Your task to perform on an android device: add a contact in the contacts app Image 0: 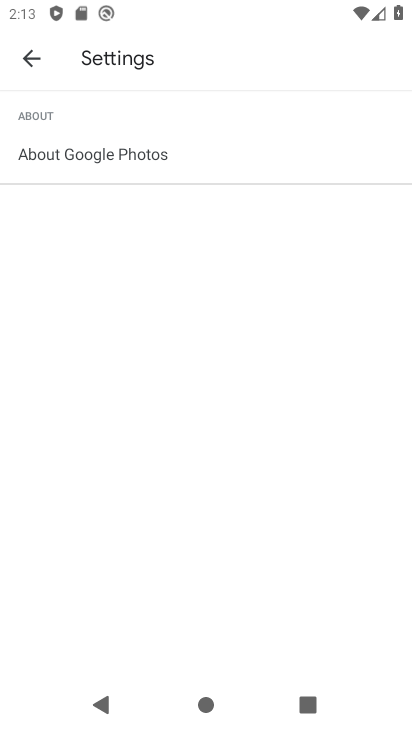
Step 0: press home button
Your task to perform on an android device: add a contact in the contacts app Image 1: 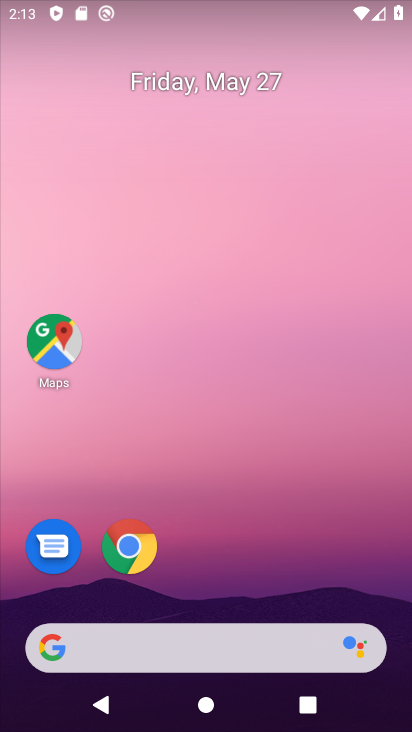
Step 1: drag from (215, 523) to (305, 193)
Your task to perform on an android device: add a contact in the contacts app Image 2: 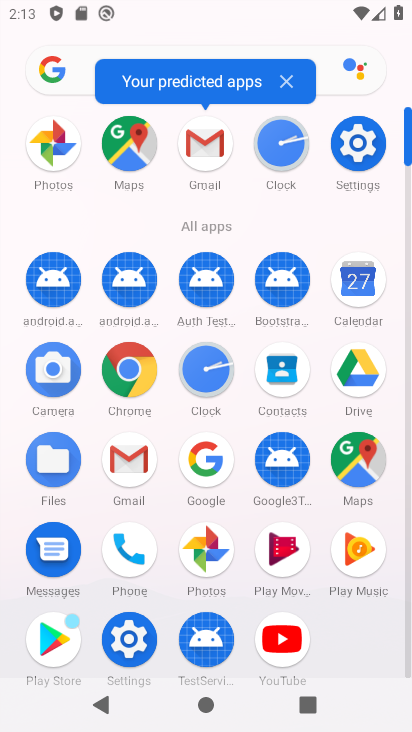
Step 2: click (280, 380)
Your task to perform on an android device: add a contact in the contacts app Image 3: 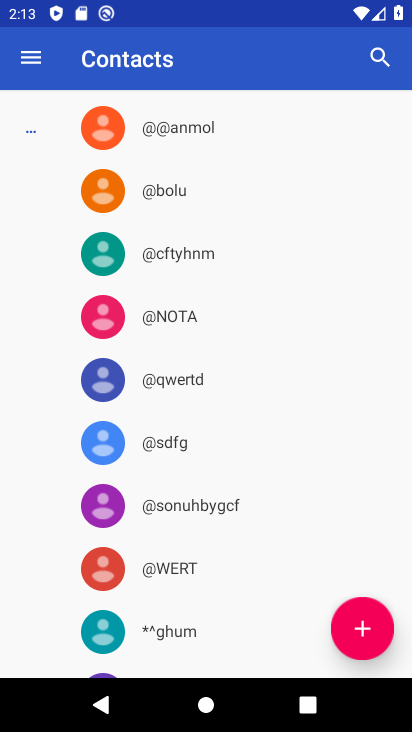
Step 3: click (380, 632)
Your task to perform on an android device: add a contact in the contacts app Image 4: 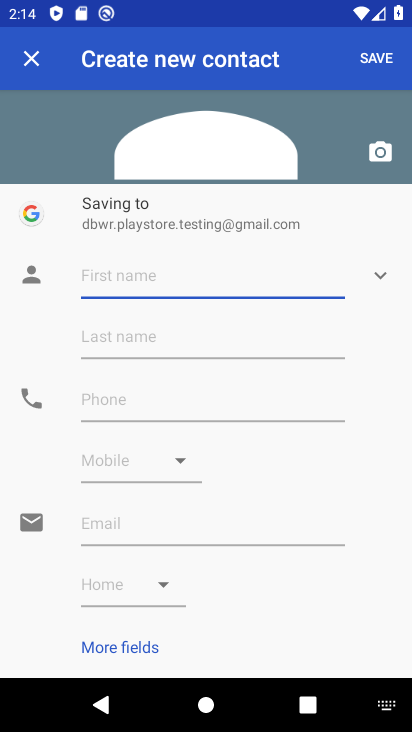
Step 4: type "ghjh"
Your task to perform on an android device: add a contact in the contacts app Image 5: 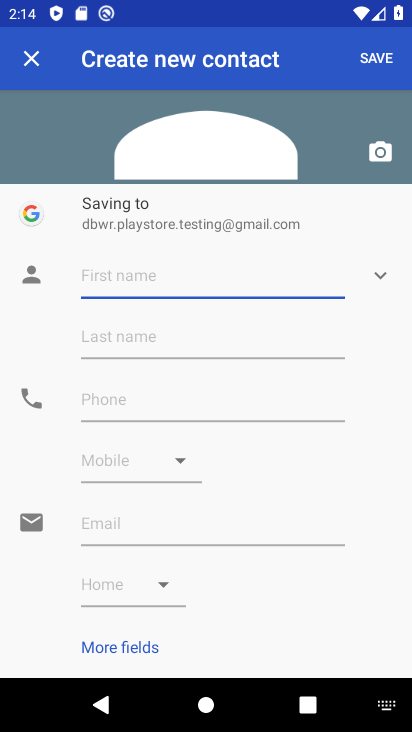
Step 5: click (134, 337)
Your task to perform on an android device: add a contact in the contacts app Image 6: 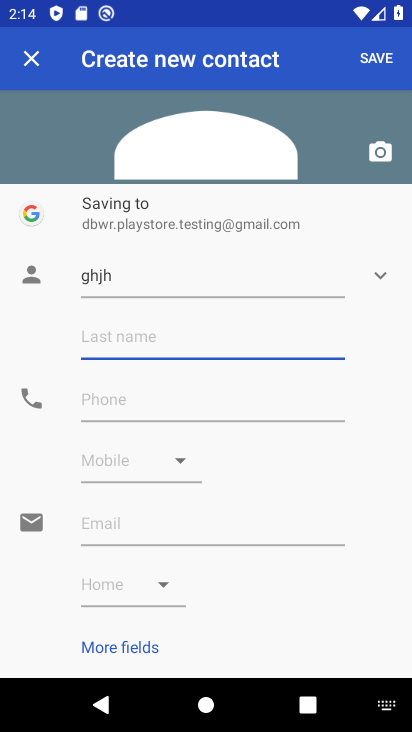
Step 6: type "gyjhg"
Your task to perform on an android device: add a contact in the contacts app Image 7: 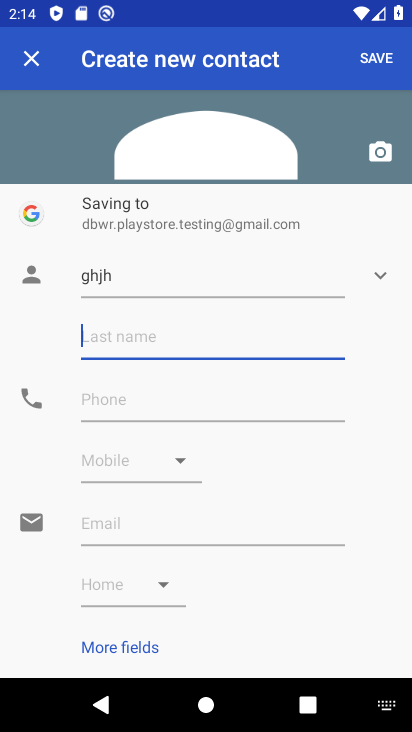
Step 7: click (128, 412)
Your task to perform on an android device: add a contact in the contacts app Image 8: 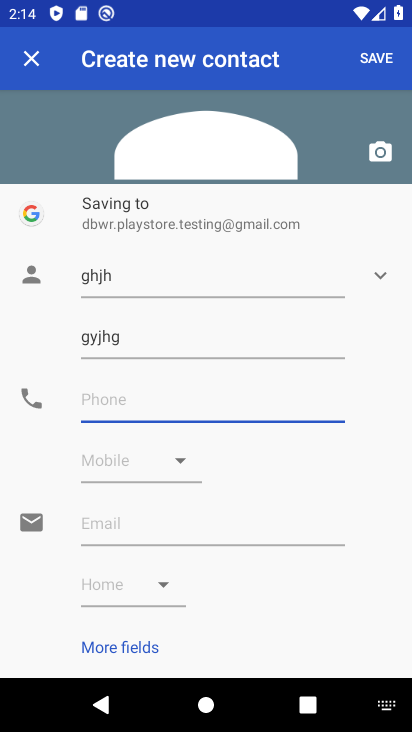
Step 8: type "67889"
Your task to perform on an android device: add a contact in the contacts app Image 9: 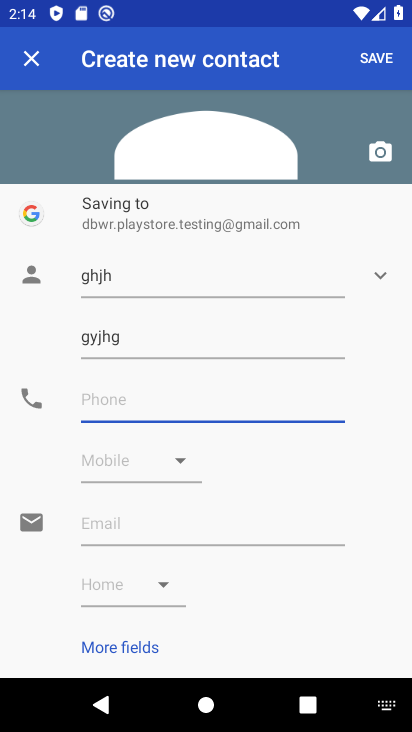
Step 9: click (389, 61)
Your task to perform on an android device: add a contact in the contacts app Image 10: 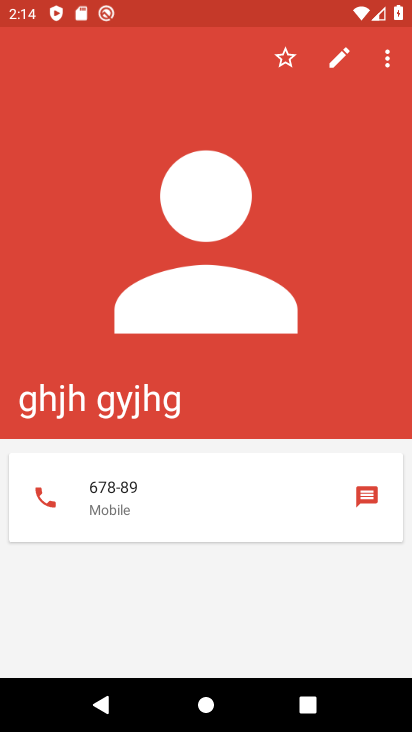
Step 10: task complete